Your task to perform on an android device: Open Yahoo.com Image 0: 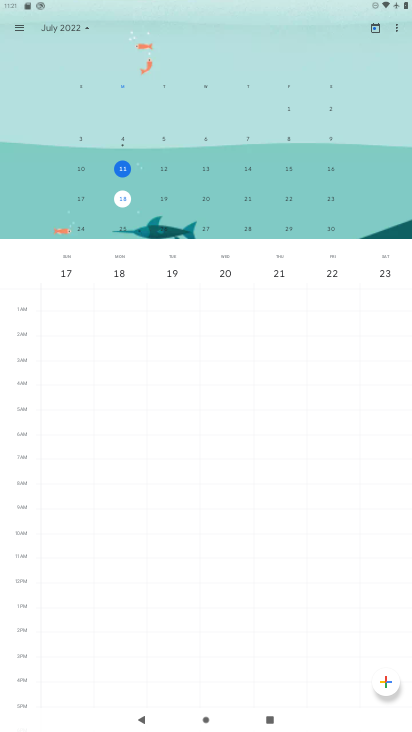
Step 0: press home button
Your task to perform on an android device: Open Yahoo.com Image 1: 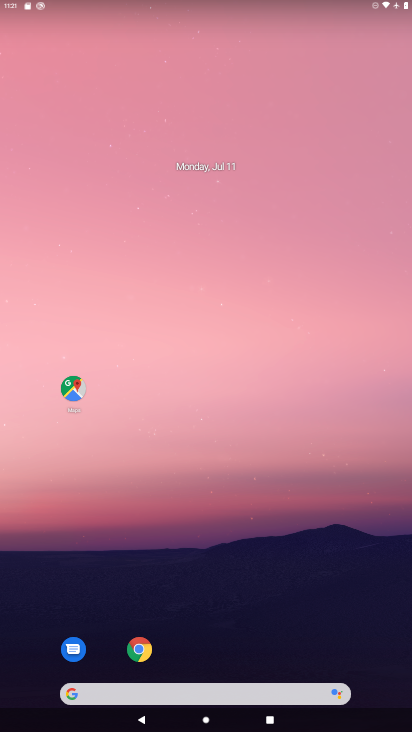
Step 1: drag from (376, 672) to (253, 147)
Your task to perform on an android device: Open Yahoo.com Image 2: 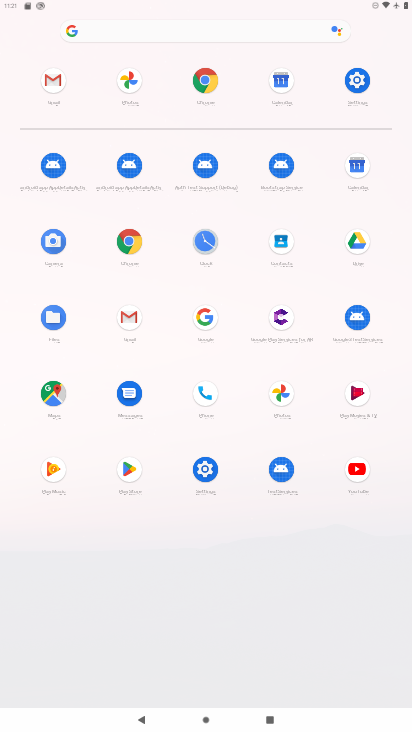
Step 2: click (206, 83)
Your task to perform on an android device: Open Yahoo.com Image 3: 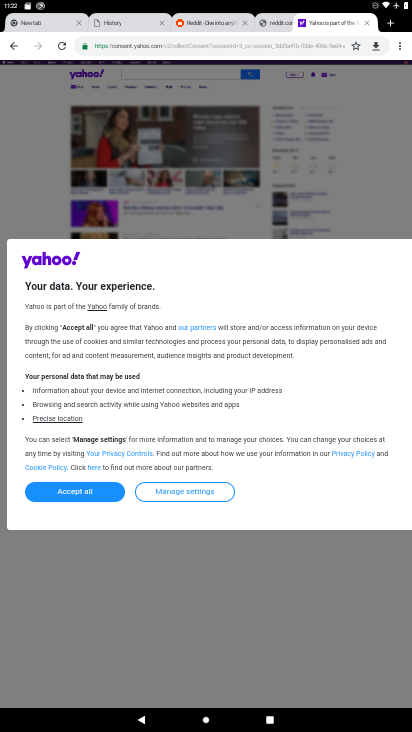
Step 3: task complete